Your task to perform on an android device: choose inbox layout in the gmail app Image 0: 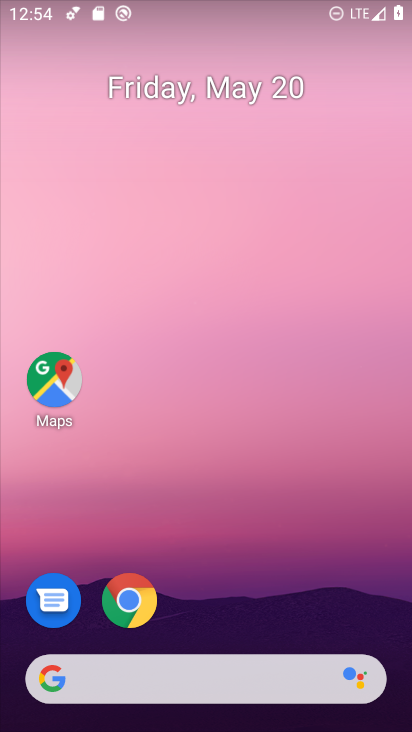
Step 0: drag from (272, 656) to (260, 180)
Your task to perform on an android device: choose inbox layout in the gmail app Image 1: 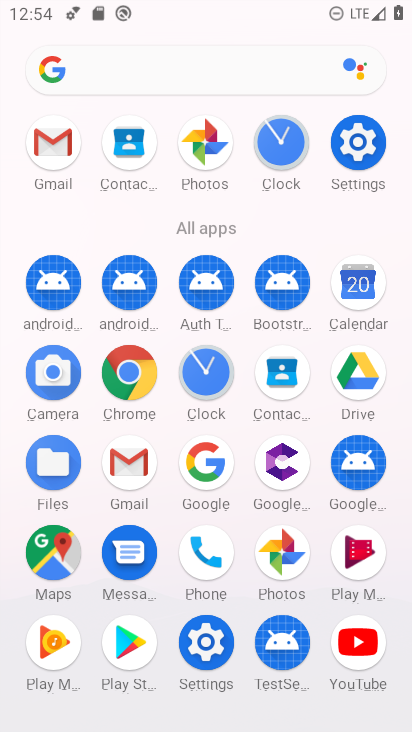
Step 1: click (121, 482)
Your task to perform on an android device: choose inbox layout in the gmail app Image 2: 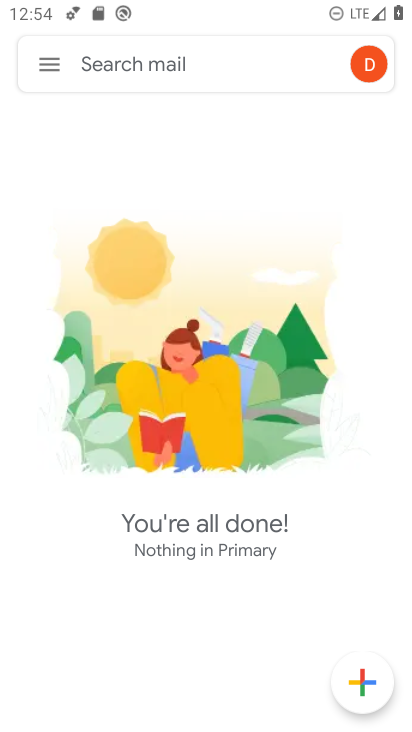
Step 2: click (56, 82)
Your task to perform on an android device: choose inbox layout in the gmail app Image 3: 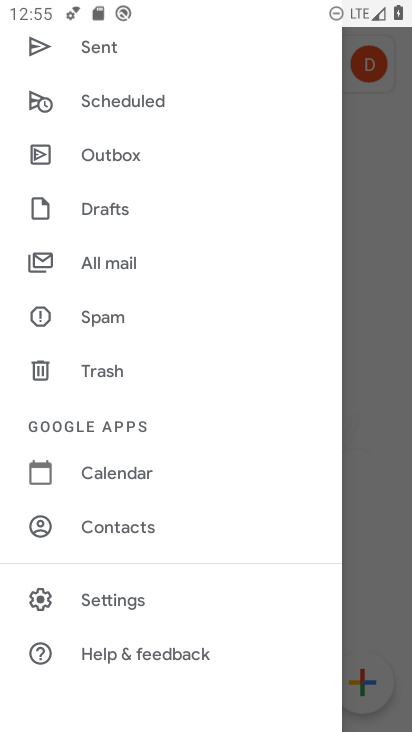
Step 3: click (105, 588)
Your task to perform on an android device: choose inbox layout in the gmail app Image 4: 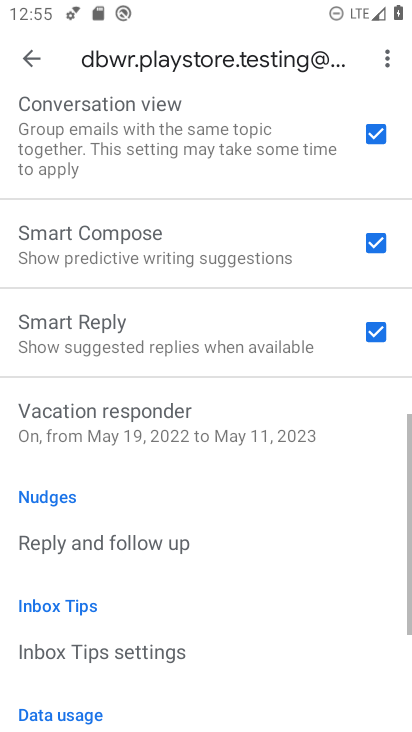
Step 4: drag from (194, 118) to (193, 604)
Your task to perform on an android device: choose inbox layout in the gmail app Image 5: 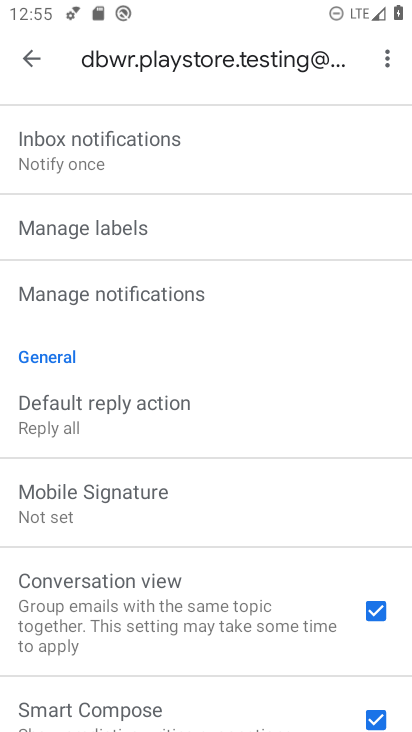
Step 5: drag from (151, 515) to (159, 557)
Your task to perform on an android device: choose inbox layout in the gmail app Image 6: 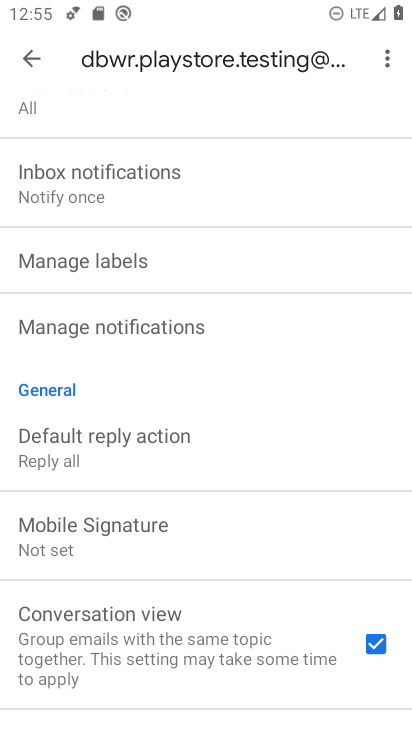
Step 6: drag from (89, 221) to (99, 691)
Your task to perform on an android device: choose inbox layout in the gmail app Image 7: 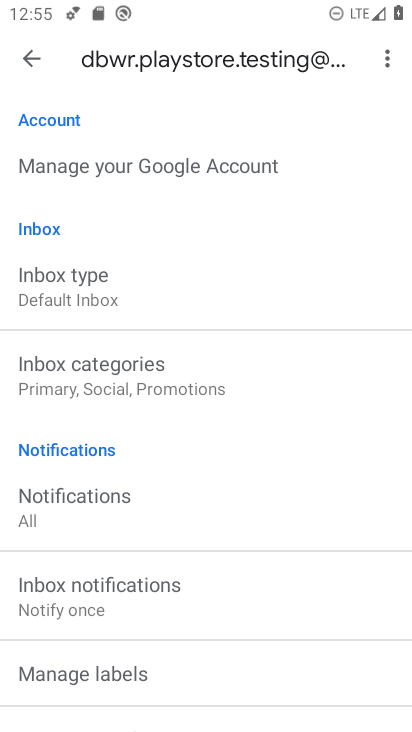
Step 7: click (76, 279)
Your task to perform on an android device: choose inbox layout in the gmail app Image 8: 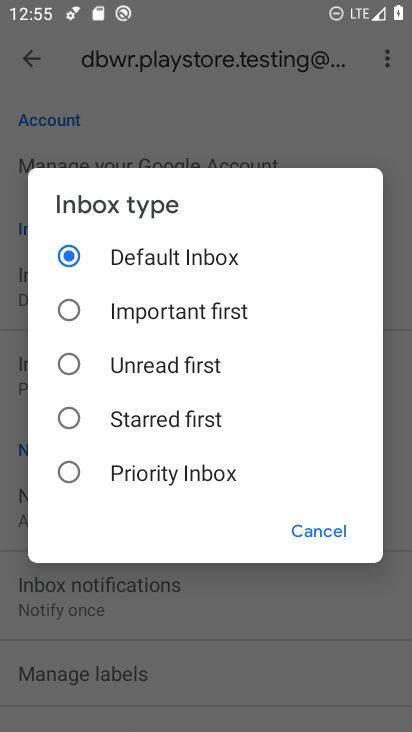
Step 8: click (114, 473)
Your task to perform on an android device: choose inbox layout in the gmail app Image 9: 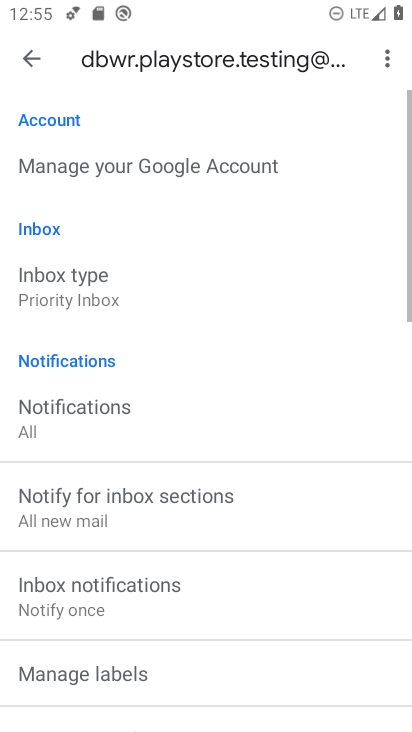
Step 9: task complete